Your task to perform on an android device: open app "eBay: The shopping marketplace" (install if not already installed) and go to login screen Image 0: 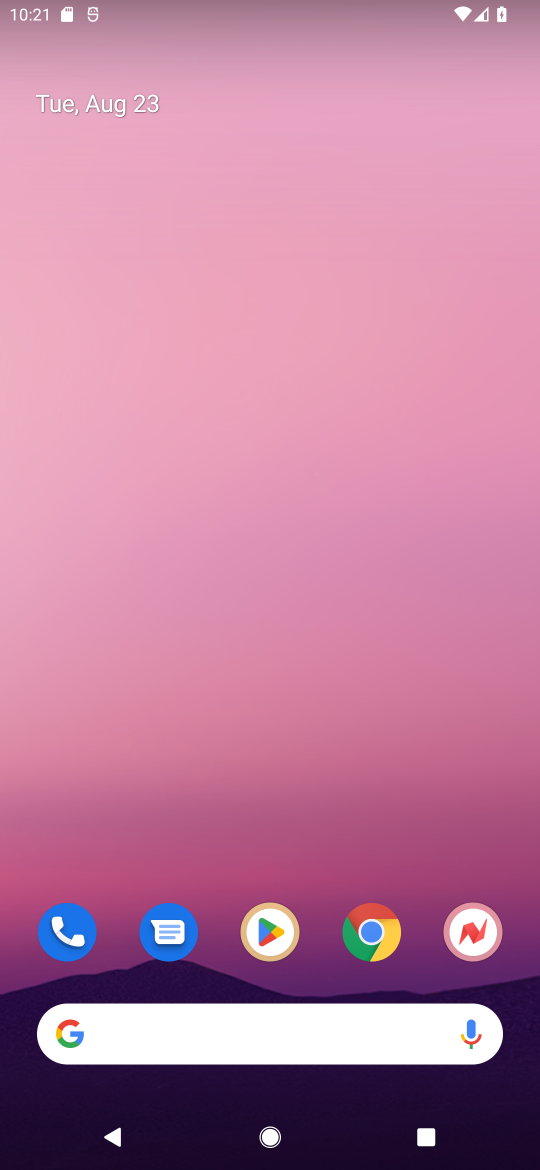
Step 0: click (273, 931)
Your task to perform on an android device: open app "eBay: The shopping marketplace" (install if not already installed) and go to login screen Image 1: 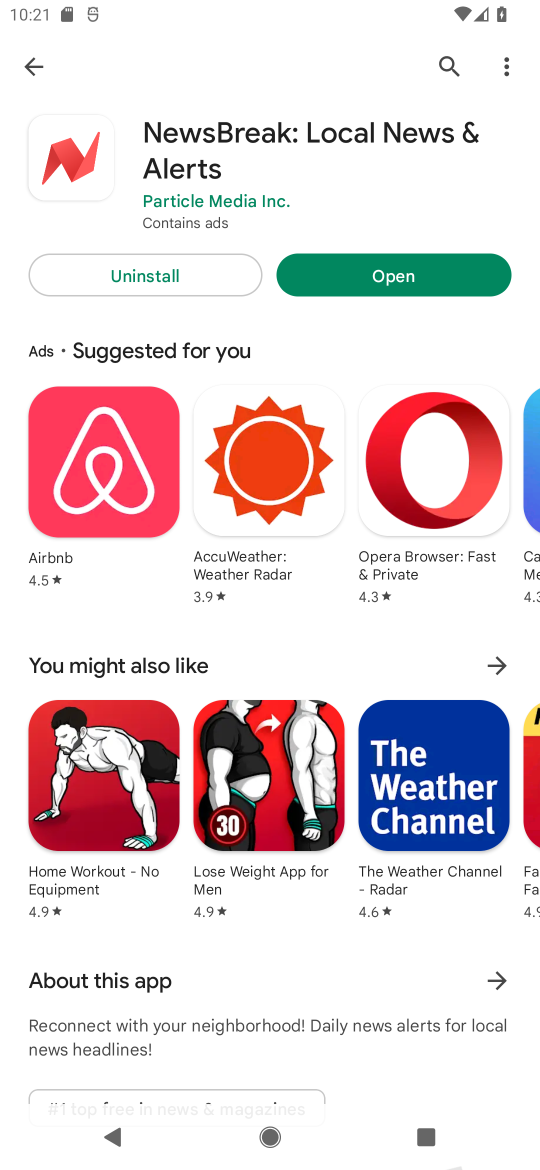
Step 1: click (425, 76)
Your task to perform on an android device: open app "eBay: The shopping marketplace" (install if not already installed) and go to login screen Image 2: 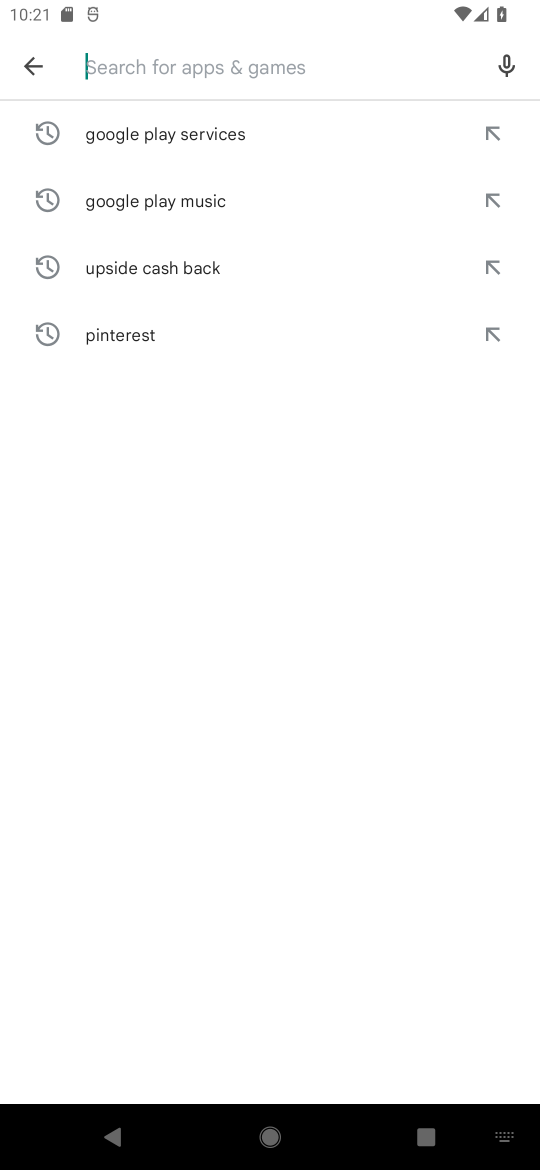
Step 2: type "ebay"
Your task to perform on an android device: open app "eBay: The shopping marketplace" (install if not already installed) and go to login screen Image 3: 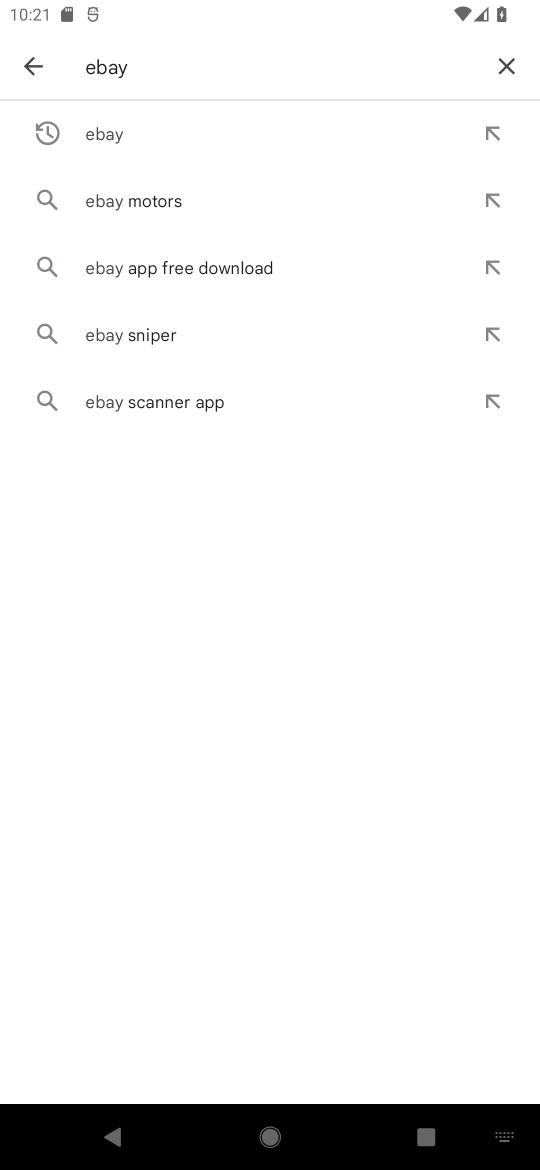
Step 3: click (118, 137)
Your task to perform on an android device: open app "eBay: The shopping marketplace" (install if not already installed) and go to login screen Image 4: 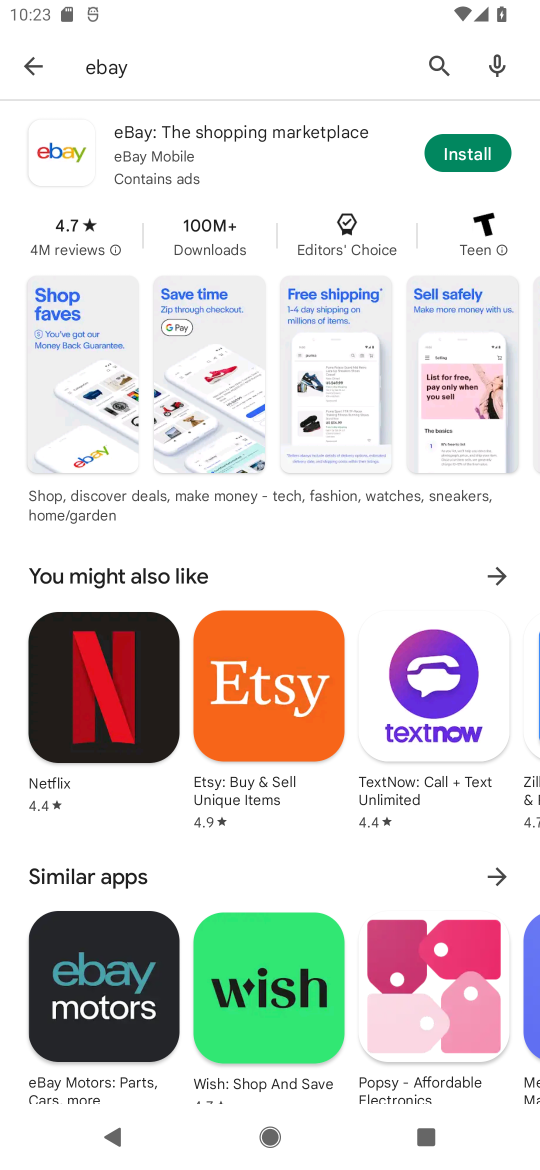
Step 4: click (480, 151)
Your task to perform on an android device: open app "eBay: The shopping marketplace" (install if not already installed) and go to login screen Image 5: 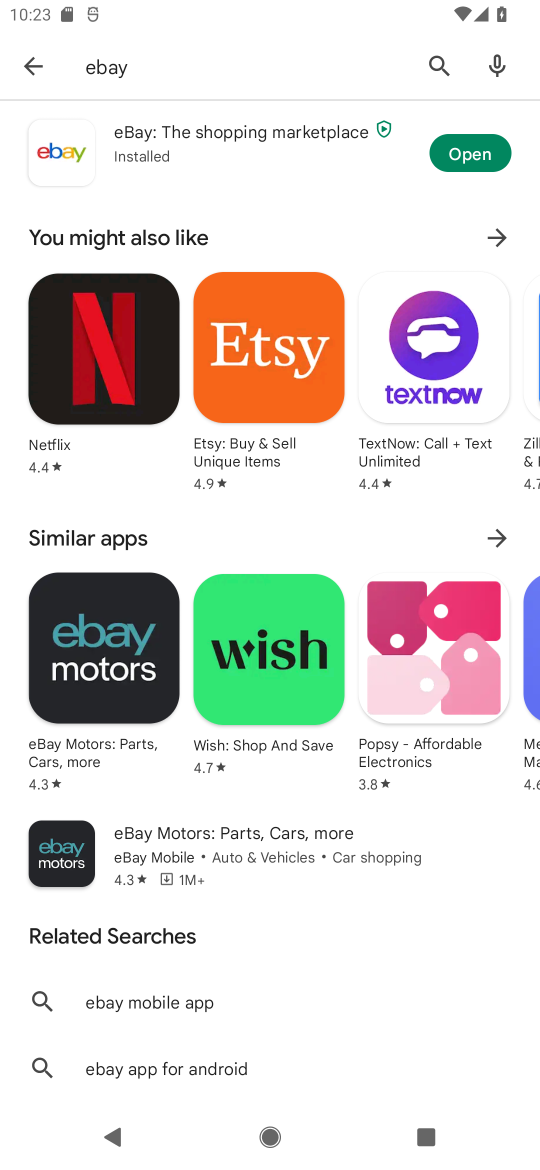
Step 5: click (477, 151)
Your task to perform on an android device: open app "eBay: The shopping marketplace" (install if not already installed) and go to login screen Image 6: 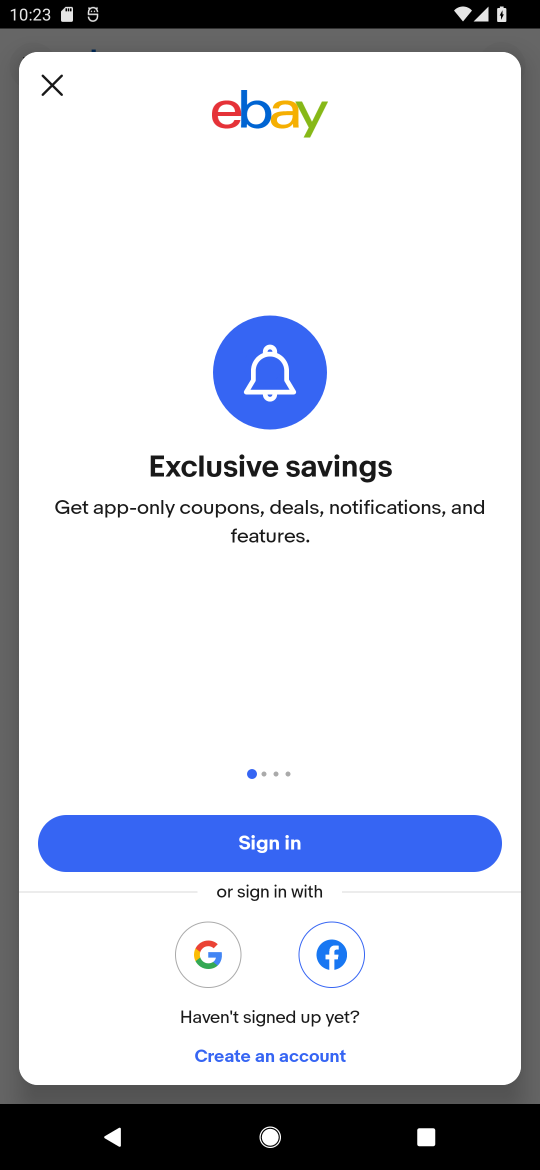
Step 6: click (267, 846)
Your task to perform on an android device: open app "eBay: The shopping marketplace" (install if not already installed) and go to login screen Image 7: 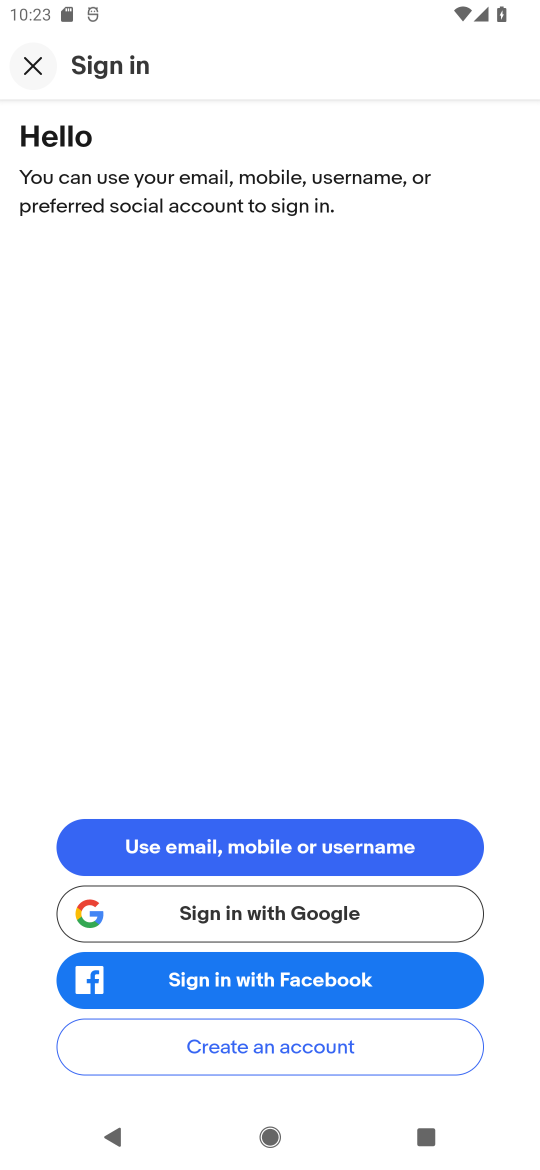
Step 7: task complete